Your task to perform on an android device: Go to Maps Image 0: 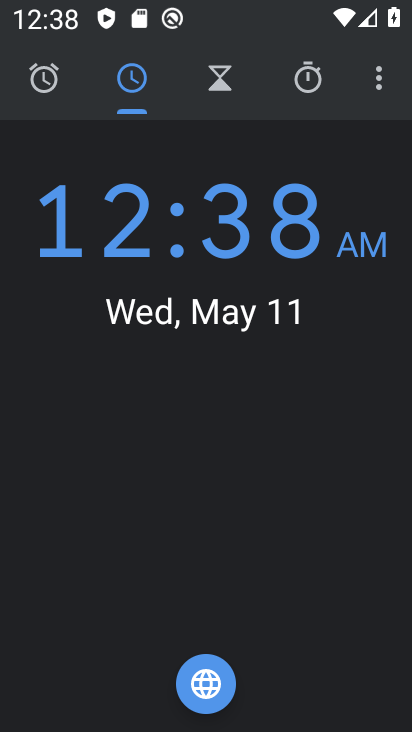
Step 0: press back button
Your task to perform on an android device: Go to Maps Image 1: 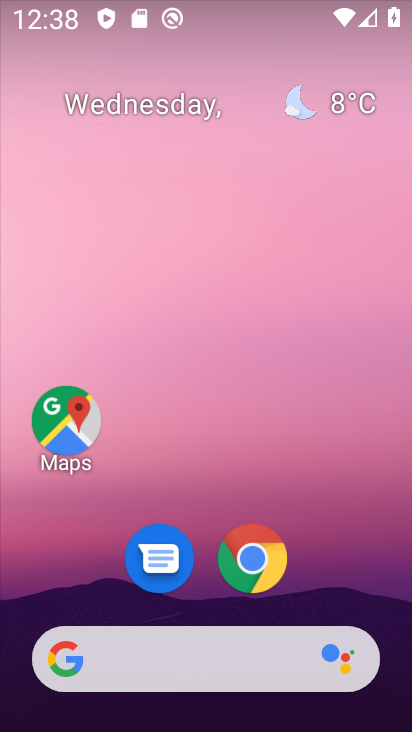
Step 1: click (59, 415)
Your task to perform on an android device: Go to Maps Image 2: 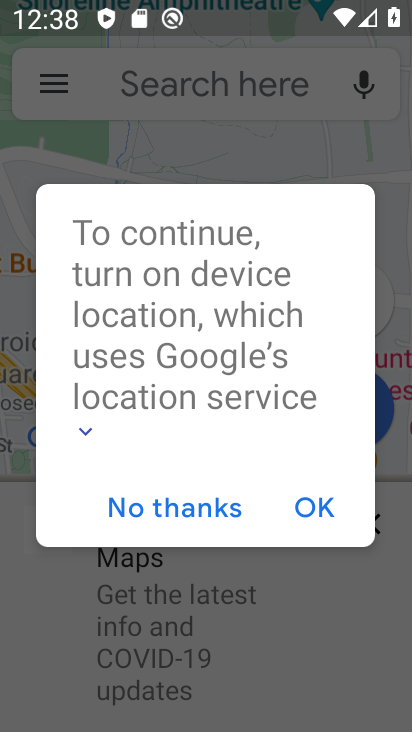
Step 2: click (313, 504)
Your task to perform on an android device: Go to Maps Image 3: 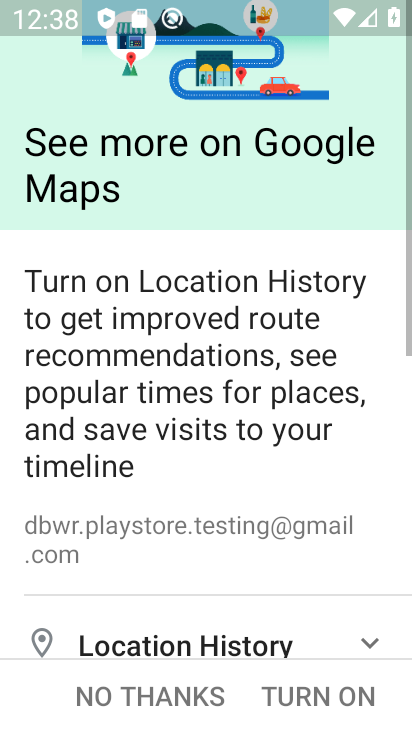
Step 3: click (323, 685)
Your task to perform on an android device: Go to Maps Image 4: 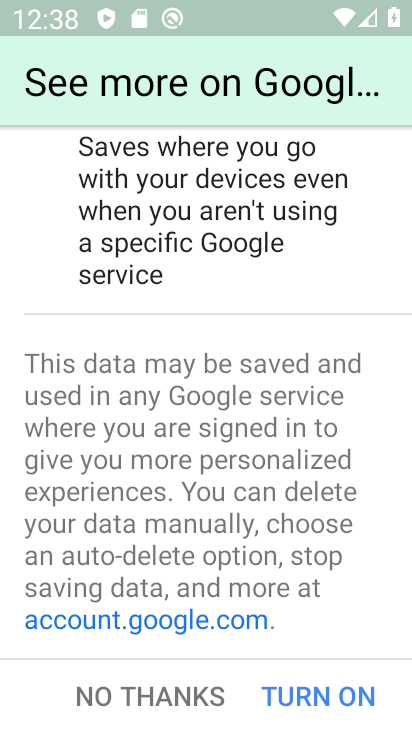
Step 4: click (324, 685)
Your task to perform on an android device: Go to Maps Image 5: 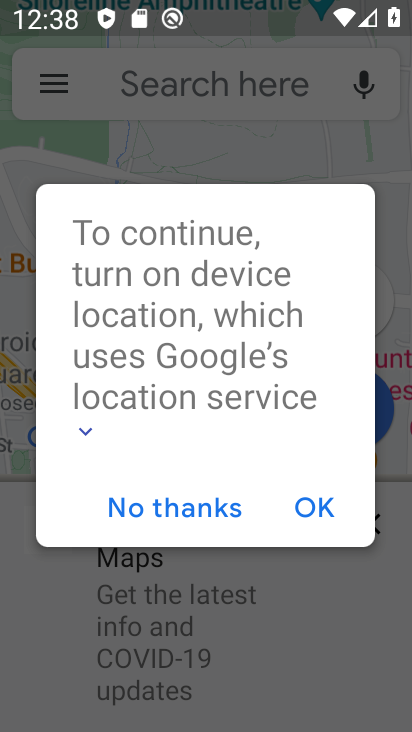
Step 5: click (319, 505)
Your task to perform on an android device: Go to Maps Image 6: 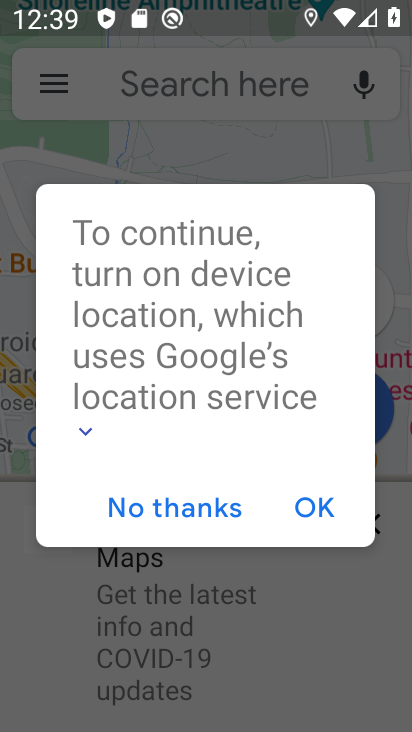
Step 6: click (270, 499)
Your task to perform on an android device: Go to Maps Image 7: 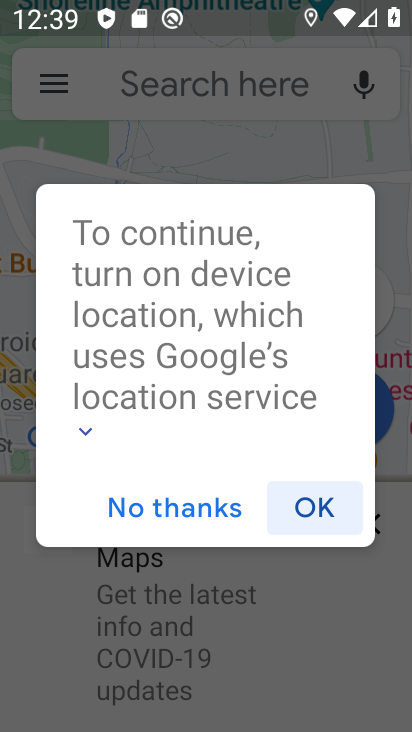
Step 7: click (308, 498)
Your task to perform on an android device: Go to Maps Image 8: 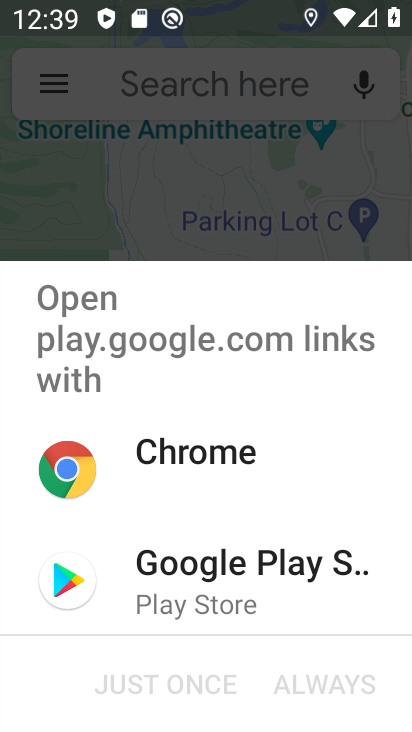
Step 8: click (183, 216)
Your task to perform on an android device: Go to Maps Image 9: 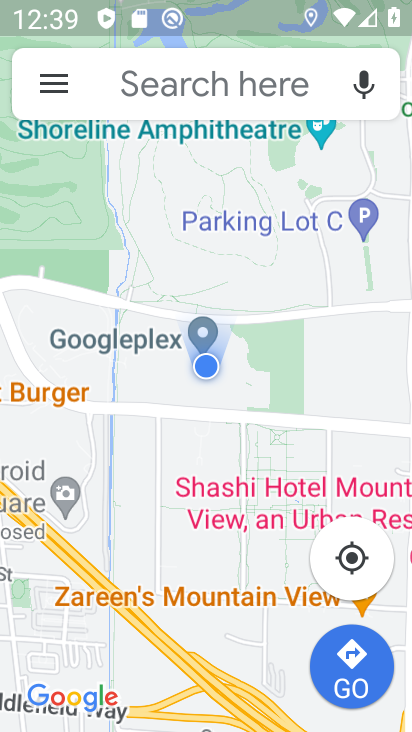
Step 9: task complete